Your task to perform on an android device: toggle wifi Image 0: 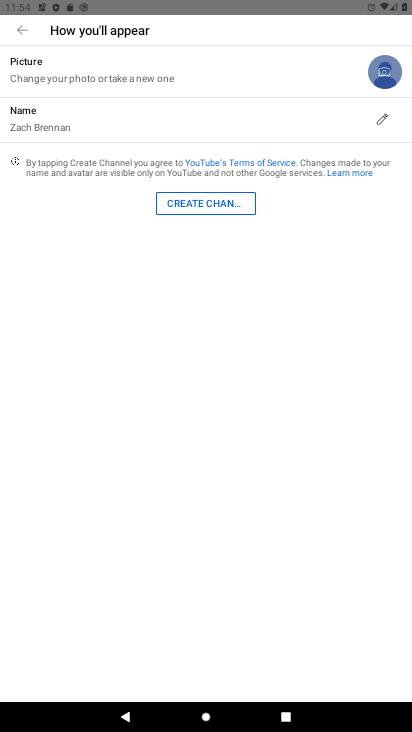
Step 0: press home button
Your task to perform on an android device: toggle wifi Image 1: 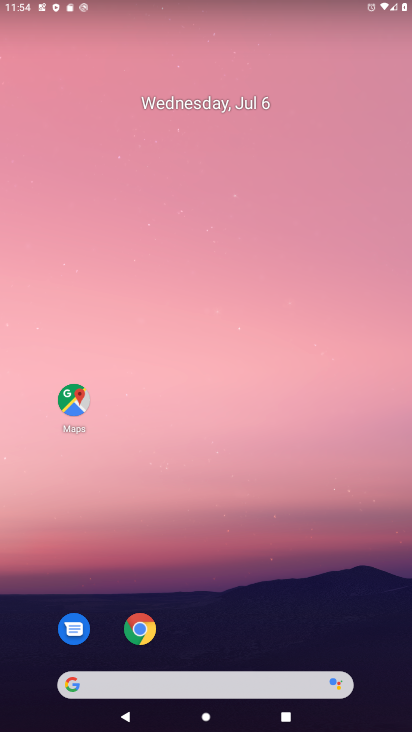
Step 1: drag from (230, 643) to (235, 202)
Your task to perform on an android device: toggle wifi Image 2: 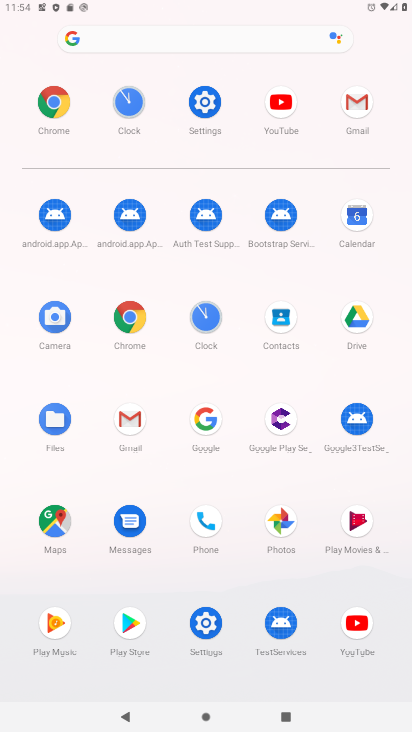
Step 2: click (205, 100)
Your task to perform on an android device: toggle wifi Image 3: 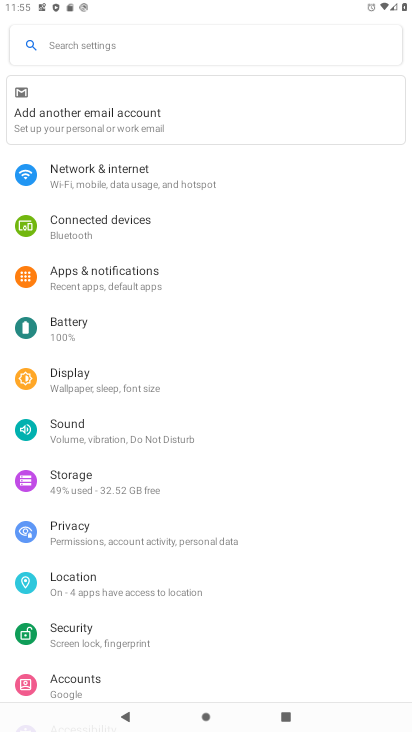
Step 3: click (111, 182)
Your task to perform on an android device: toggle wifi Image 4: 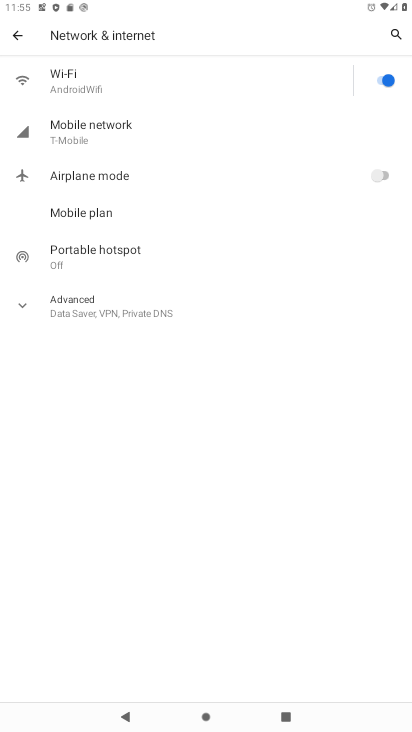
Step 4: click (390, 77)
Your task to perform on an android device: toggle wifi Image 5: 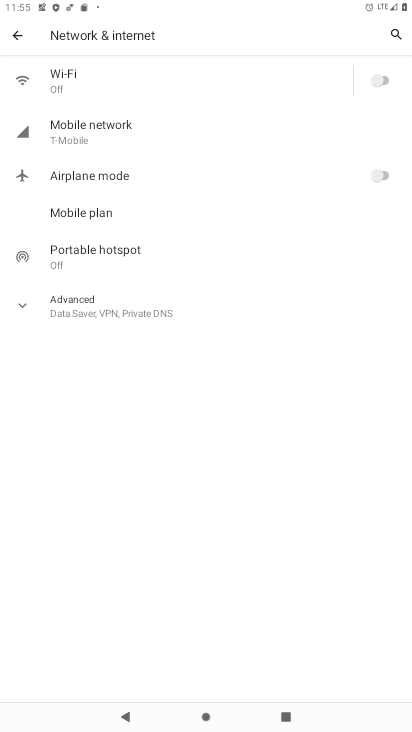
Step 5: task complete